Your task to perform on an android device: Go to network settings Image 0: 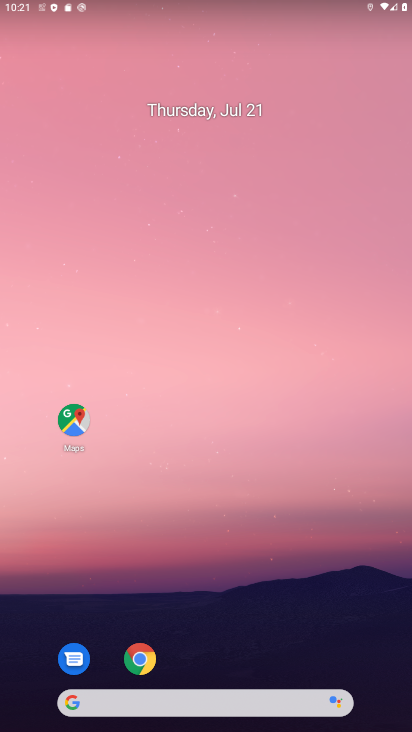
Step 0: drag from (247, 677) to (238, 188)
Your task to perform on an android device: Go to network settings Image 1: 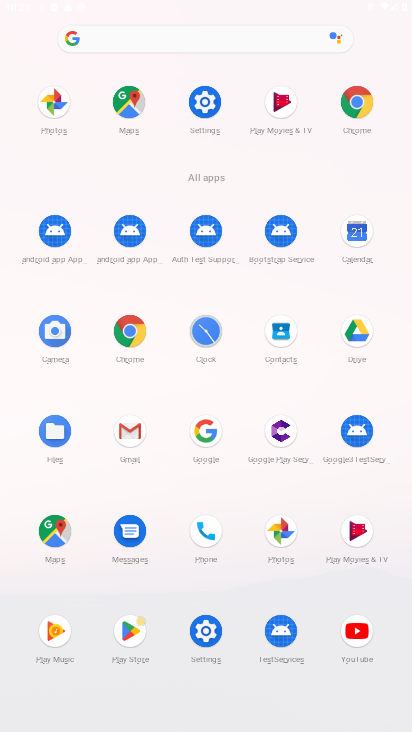
Step 1: click (202, 90)
Your task to perform on an android device: Go to network settings Image 2: 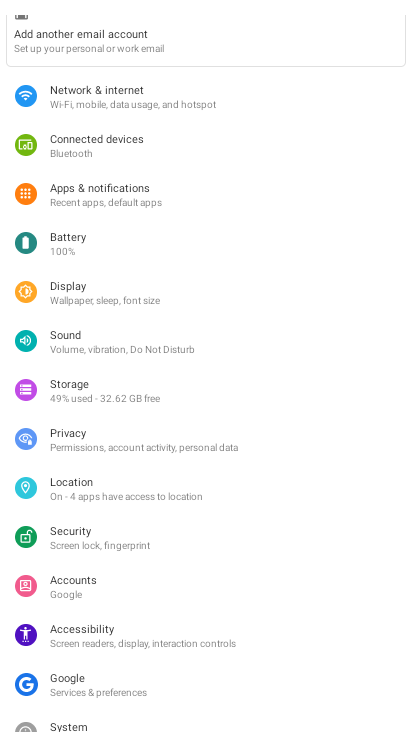
Step 2: click (166, 102)
Your task to perform on an android device: Go to network settings Image 3: 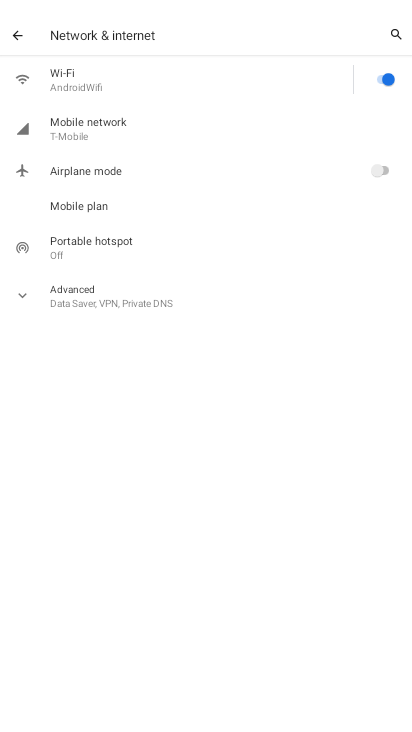
Step 3: click (111, 122)
Your task to perform on an android device: Go to network settings Image 4: 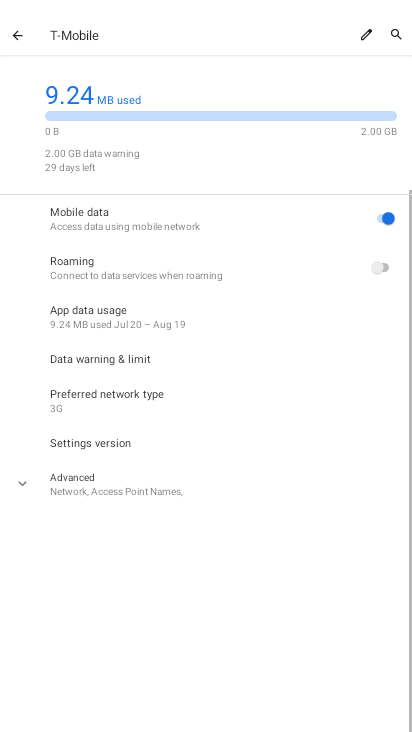
Step 4: task complete